Your task to perform on an android device: all mails in gmail Image 0: 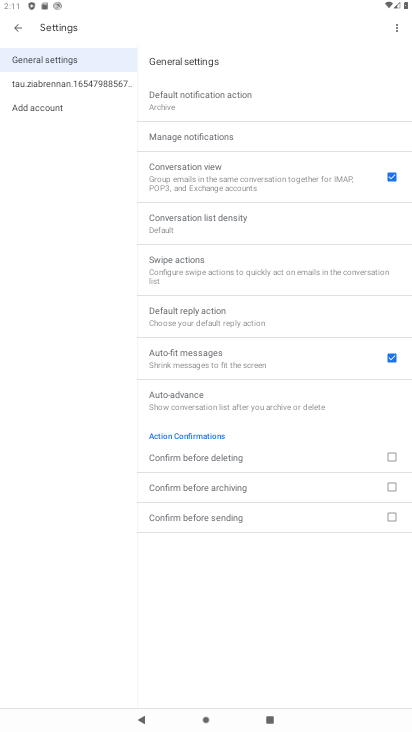
Step 0: press home button
Your task to perform on an android device: all mails in gmail Image 1: 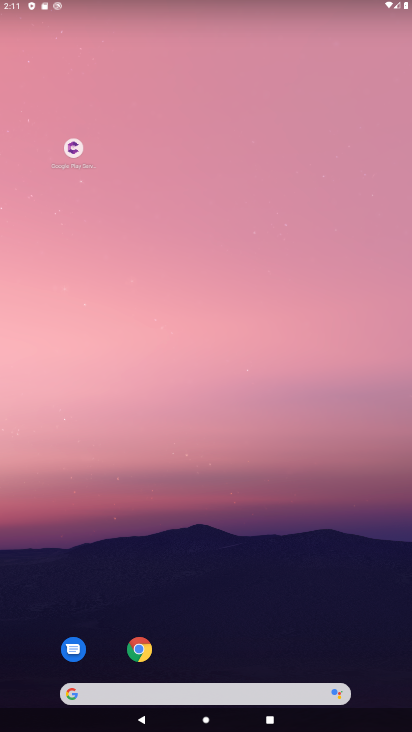
Step 1: drag from (220, 651) to (188, 105)
Your task to perform on an android device: all mails in gmail Image 2: 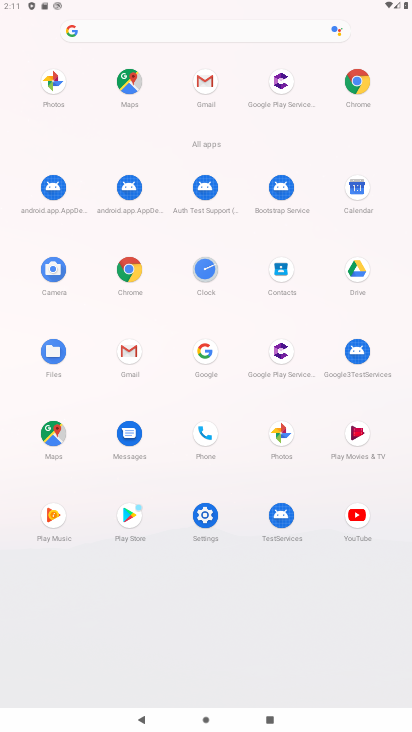
Step 2: click (206, 75)
Your task to perform on an android device: all mails in gmail Image 3: 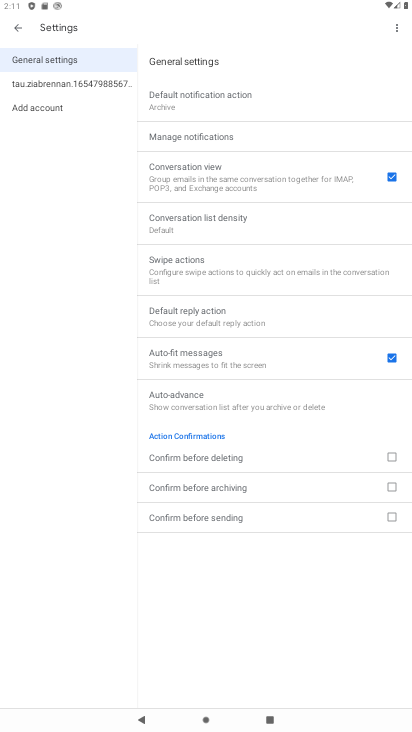
Step 3: press back button
Your task to perform on an android device: all mails in gmail Image 4: 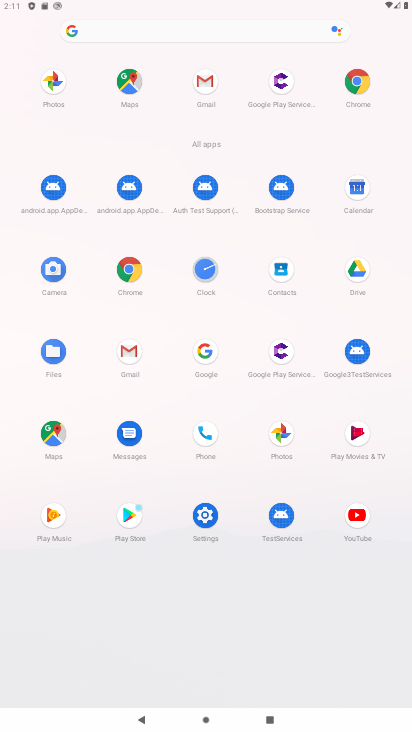
Step 4: click (196, 75)
Your task to perform on an android device: all mails in gmail Image 5: 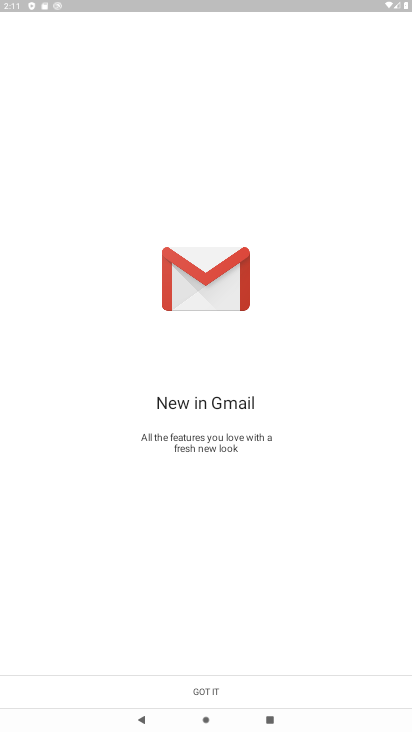
Step 5: click (194, 698)
Your task to perform on an android device: all mails in gmail Image 6: 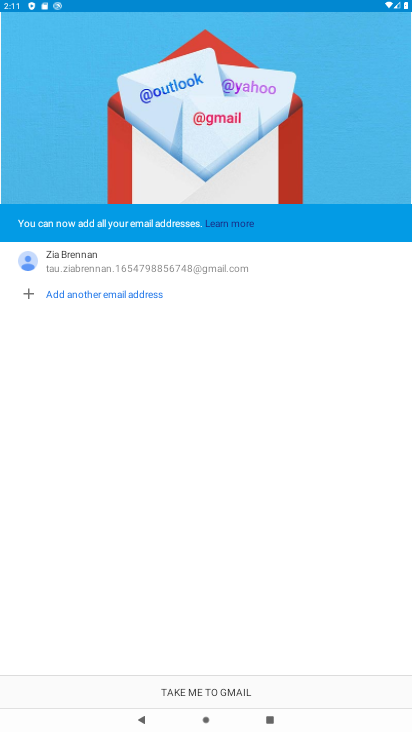
Step 6: click (195, 697)
Your task to perform on an android device: all mails in gmail Image 7: 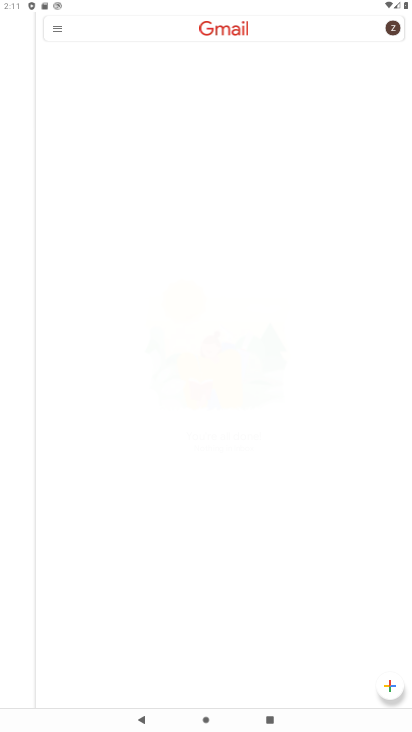
Step 7: click (61, 34)
Your task to perform on an android device: all mails in gmail Image 8: 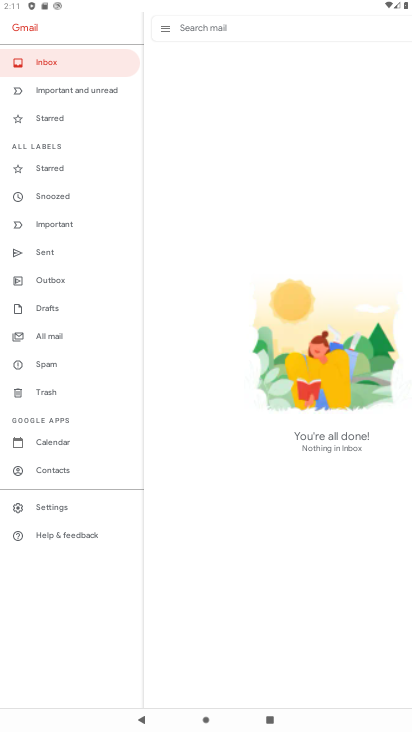
Step 8: click (49, 336)
Your task to perform on an android device: all mails in gmail Image 9: 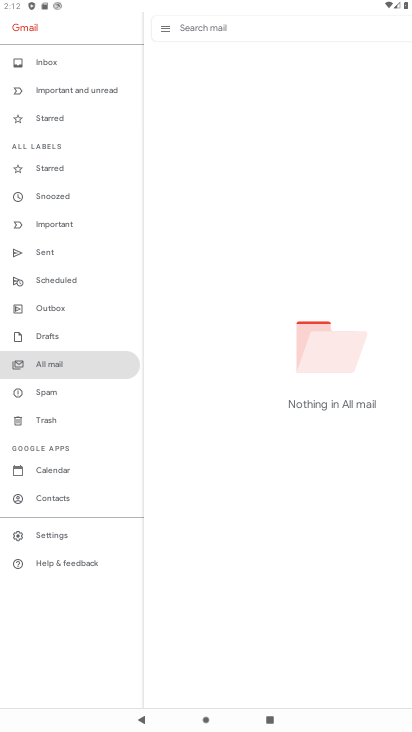
Step 9: task complete